Your task to perform on an android device: Open wifi settings Image 0: 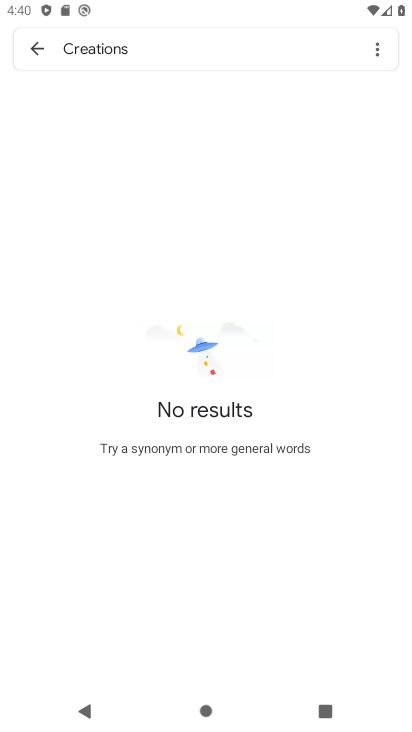
Step 0: press home button
Your task to perform on an android device: Open wifi settings Image 1: 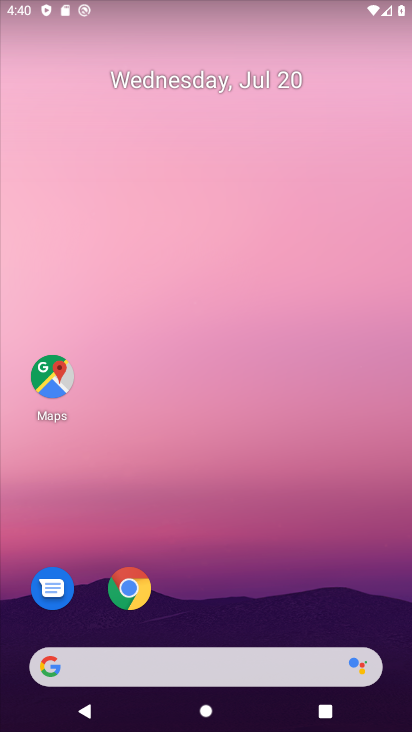
Step 1: drag from (328, 593) to (234, 150)
Your task to perform on an android device: Open wifi settings Image 2: 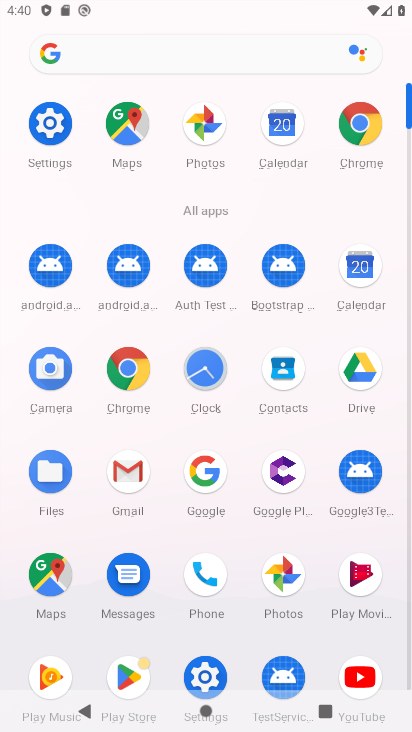
Step 2: click (58, 138)
Your task to perform on an android device: Open wifi settings Image 3: 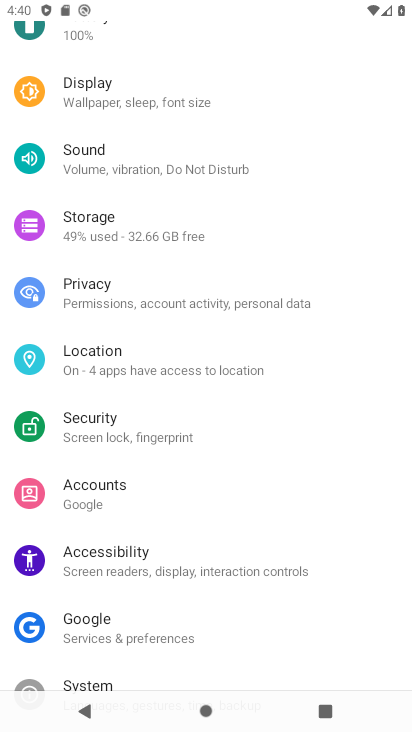
Step 3: drag from (148, 134) to (140, 450)
Your task to perform on an android device: Open wifi settings Image 4: 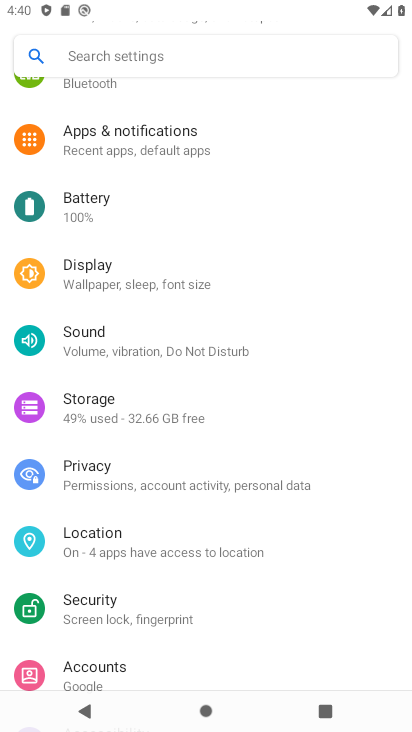
Step 4: drag from (229, 182) to (232, 490)
Your task to perform on an android device: Open wifi settings Image 5: 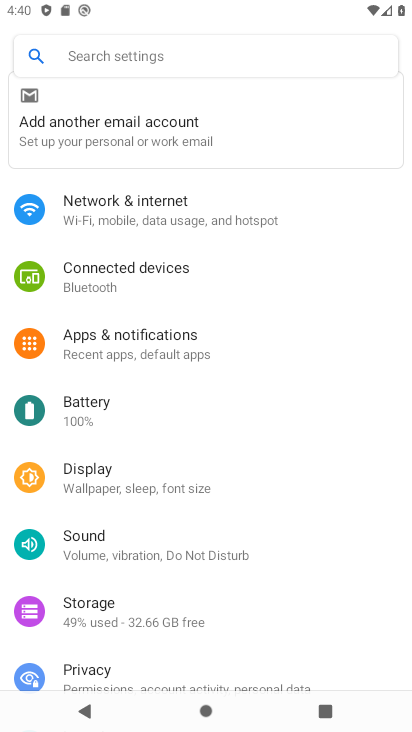
Step 5: click (206, 219)
Your task to perform on an android device: Open wifi settings Image 6: 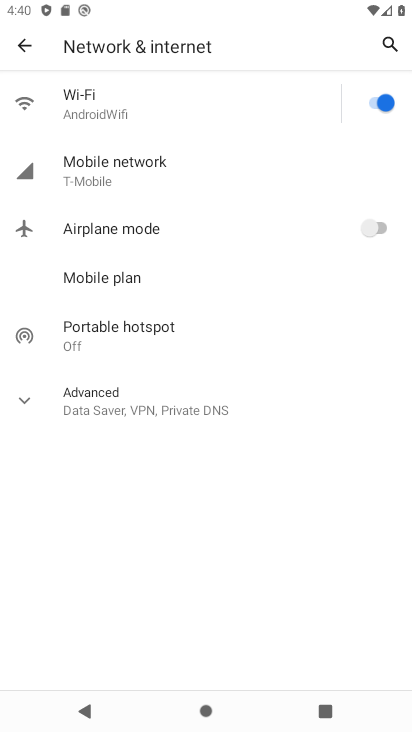
Step 6: click (260, 119)
Your task to perform on an android device: Open wifi settings Image 7: 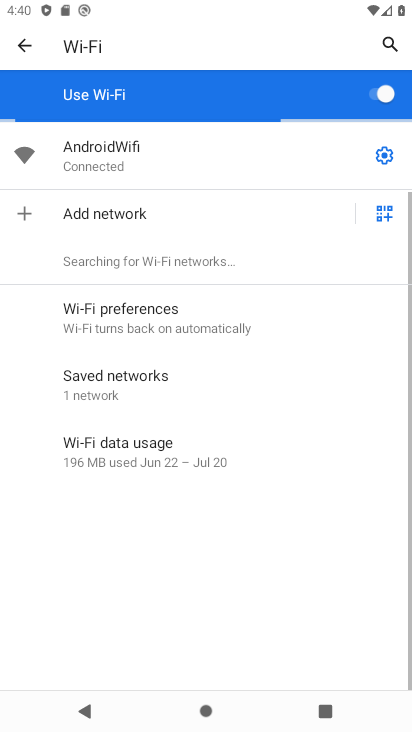
Step 7: task complete